Your task to perform on an android device: turn off picture-in-picture Image 0: 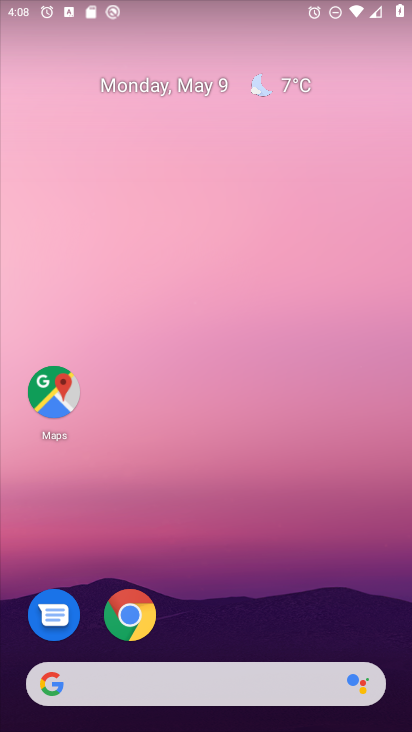
Step 0: drag from (388, 642) to (270, 59)
Your task to perform on an android device: turn off picture-in-picture Image 1: 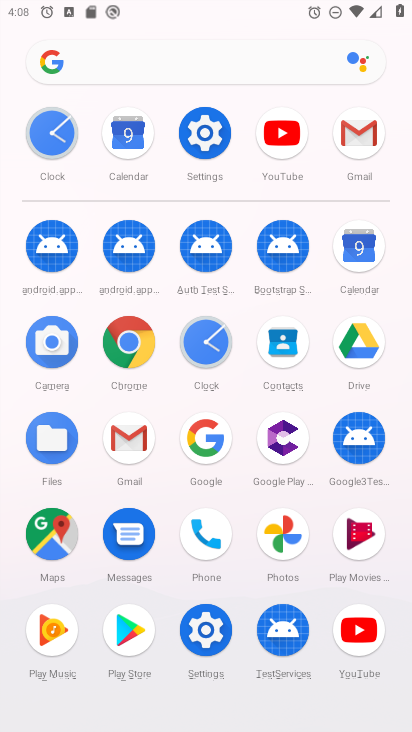
Step 1: click (203, 626)
Your task to perform on an android device: turn off picture-in-picture Image 2: 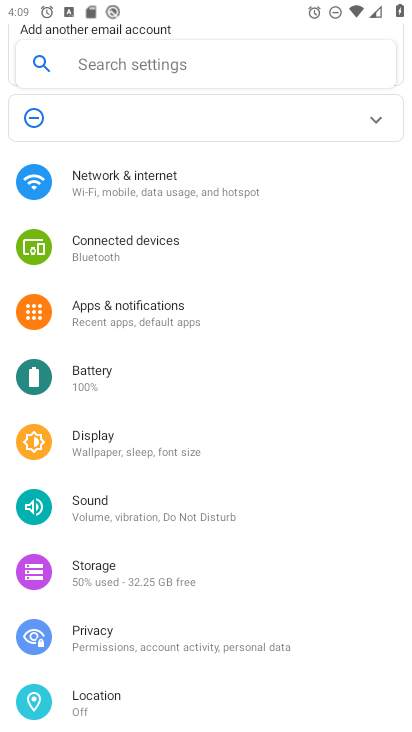
Step 2: click (111, 305)
Your task to perform on an android device: turn off picture-in-picture Image 3: 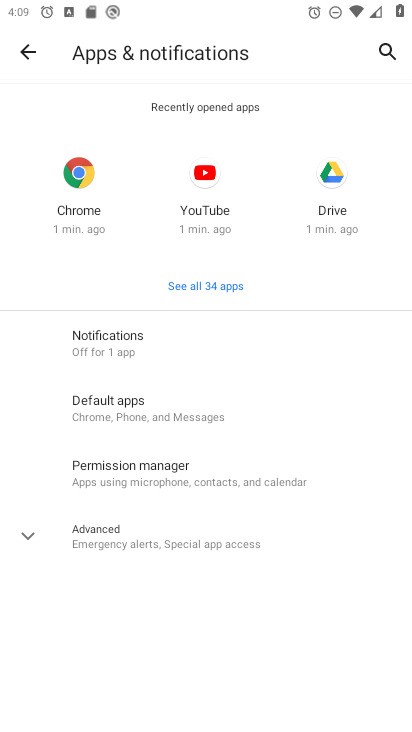
Step 3: click (29, 529)
Your task to perform on an android device: turn off picture-in-picture Image 4: 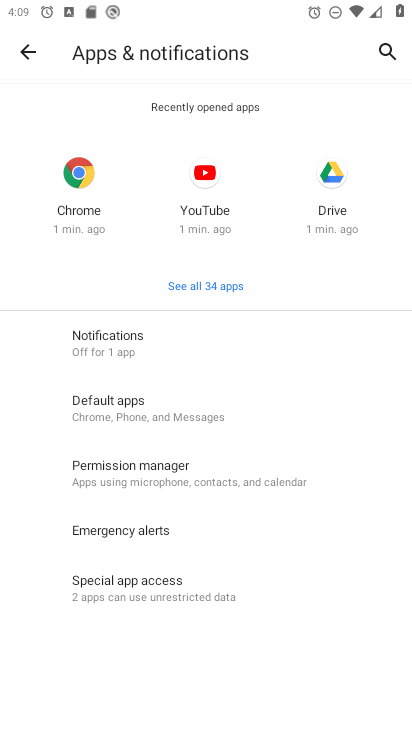
Step 4: click (105, 581)
Your task to perform on an android device: turn off picture-in-picture Image 5: 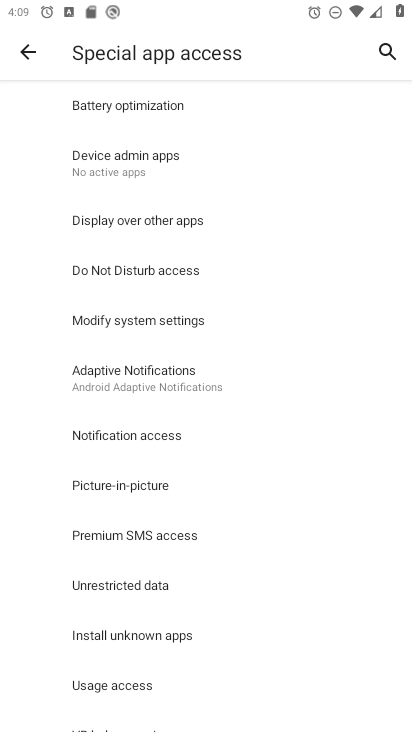
Step 5: click (91, 490)
Your task to perform on an android device: turn off picture-in-picture Image 6: 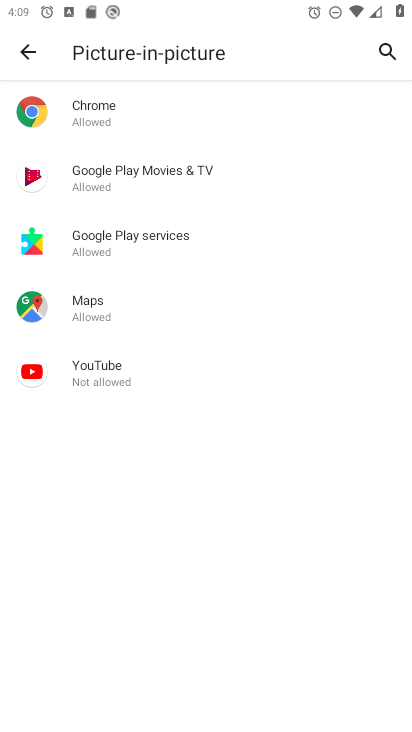
Step 6: click (88, 383)
Your task to perform on an android device: turn off picture-in-picture Image 7: 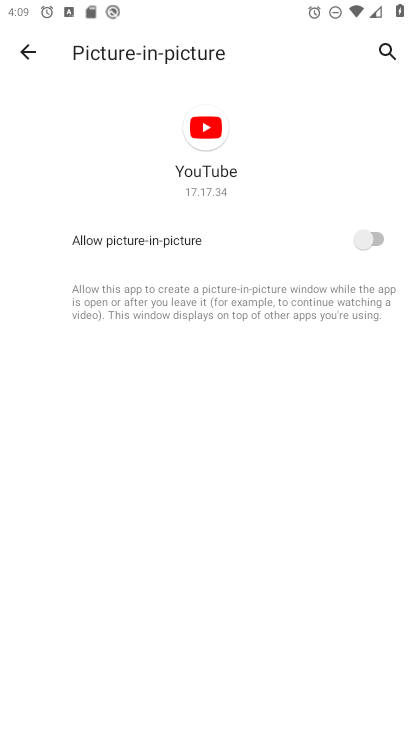
Step 7: task complete